Your task to perform on an android device: Go to Maps Image 0: 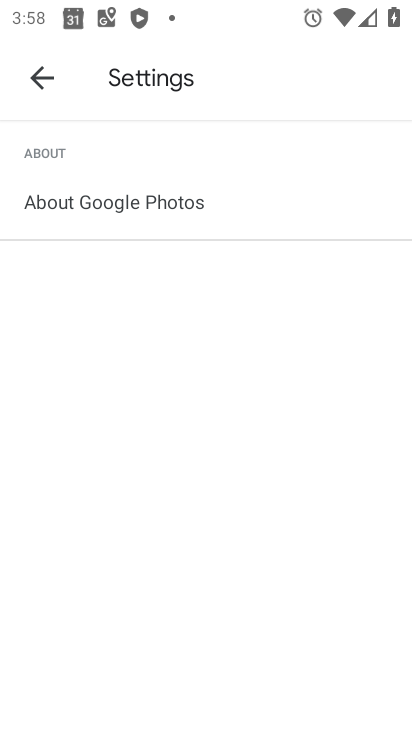
Step 0: press home button
Your task to perform on an android device: Go to Maps Image 1: 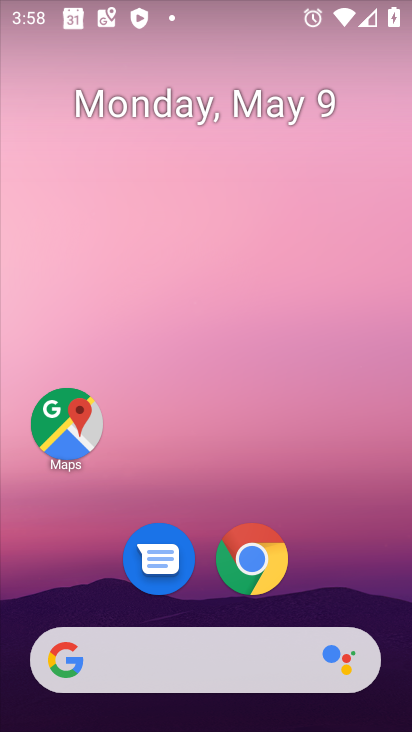
Step 1: drag from (224, 728) to (227, 138)
Your task to perform on an android device: Go to Maps Image 2: 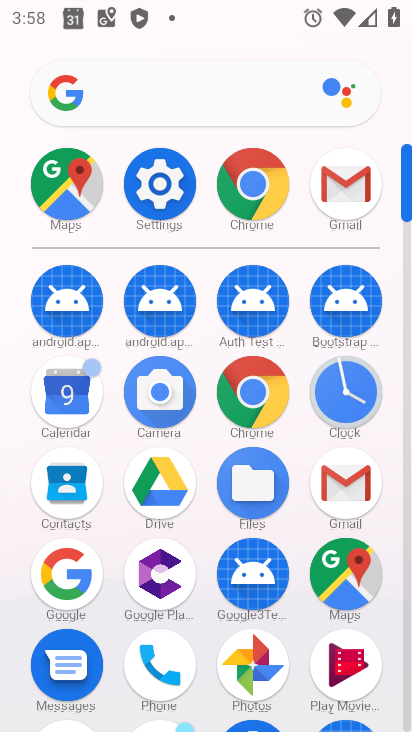
Step 2: click (352, 561)
Your task to perform on an android device: Go to Maps Image 3: 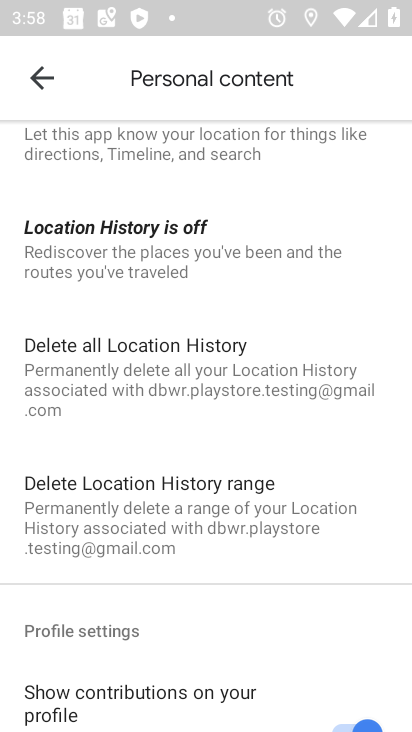
Step 3: task complete